Your task to perform on an android device: set the stopwatch Image 0: 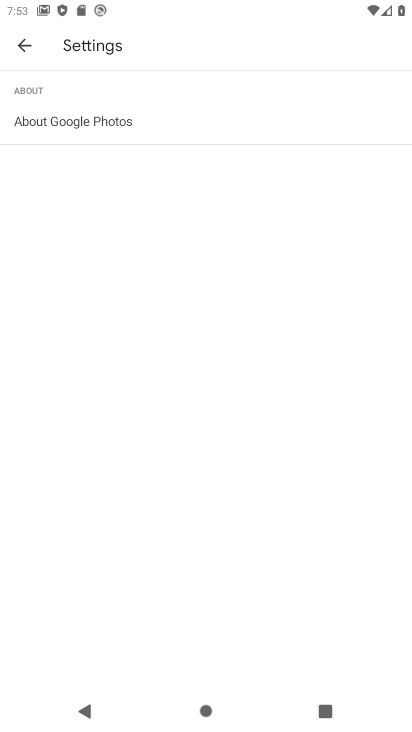
Step 0: press home button
Your task to perform on an android device: set the stopwatch Image 1: 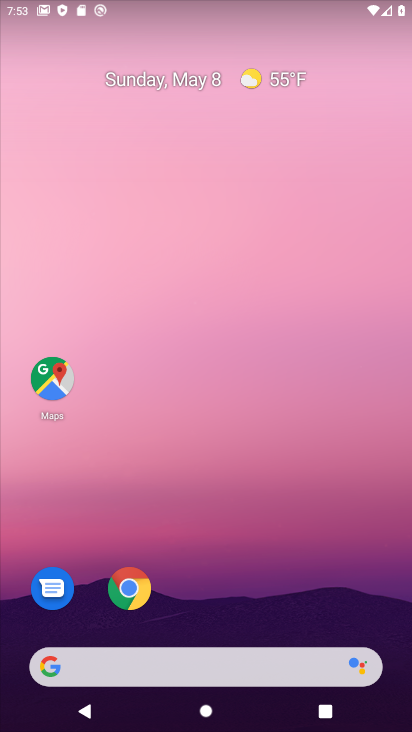
Step 1: drag from (350, 601) to (349, 54)
Your task to perform on an android device: set the stopwatch Image 2: 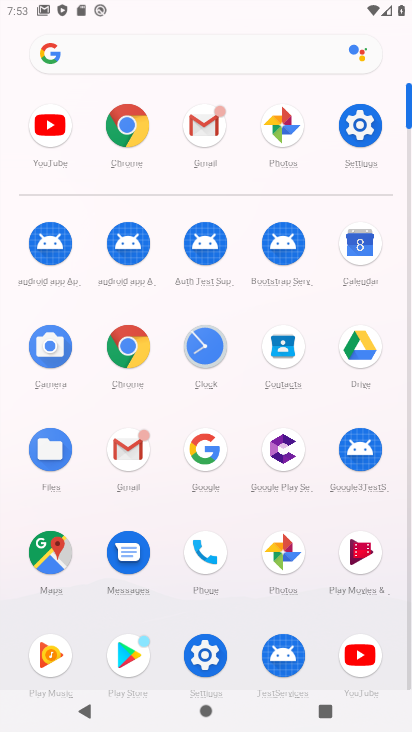
Step 2: click (204, 360)
Your task to perform on an android device: set the stopwatch Image 3: 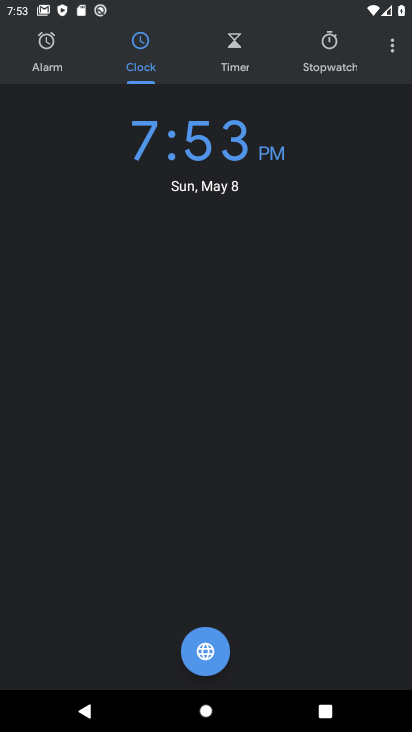
Step 3: click (324, 44)
Your task to perform on an android device: set the stopwatch Image 4: 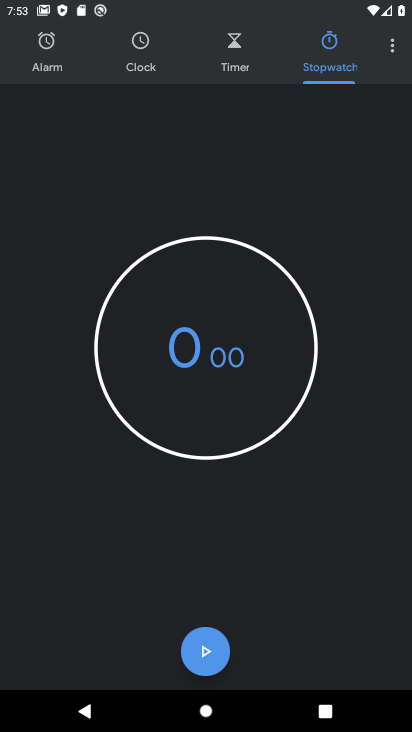
Step 4: task complete